Your task to perform on an android device: turn notification dots on Image 0: 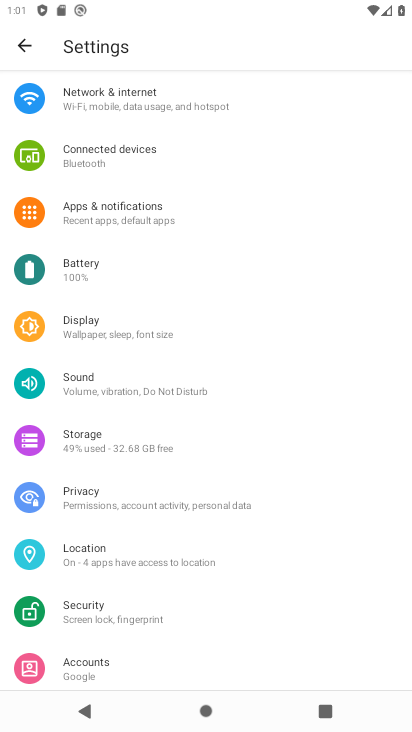
Step 0: click (259, 202)
Your task to perform on an android device: turn notification dots on Image 1: 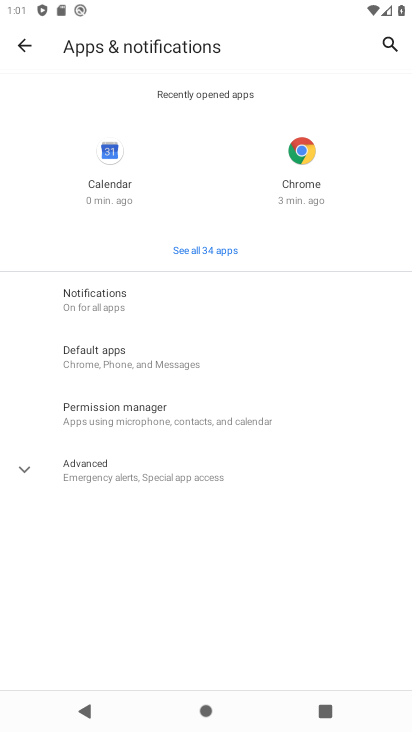
Step 1: click (201, 311)
Your task to perform on an android device: turn notification dots on Image 2: 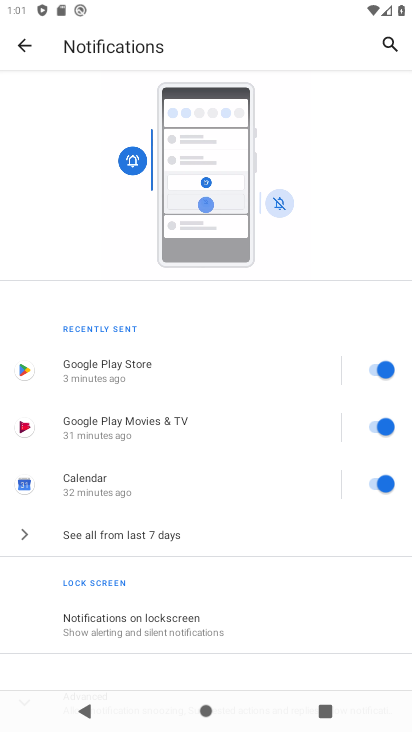
Step 2: drag from (197, 634) to (193, 429)
Your task to perform on an android device: turn notification dots on Image 3: 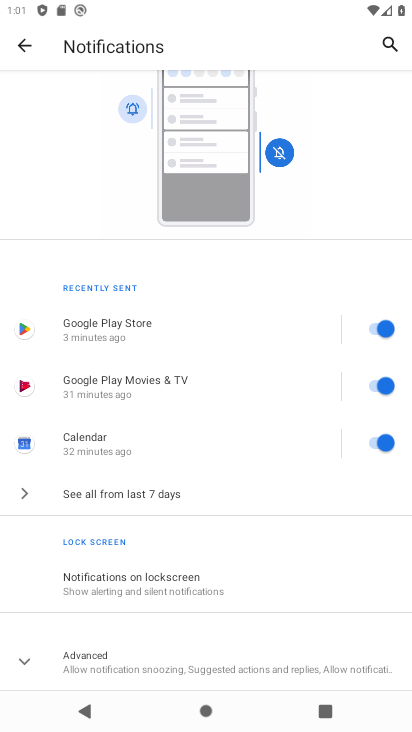
Step 3: click (221, 660)
Your task to perform on an android device: turn notification dots on Image 4: 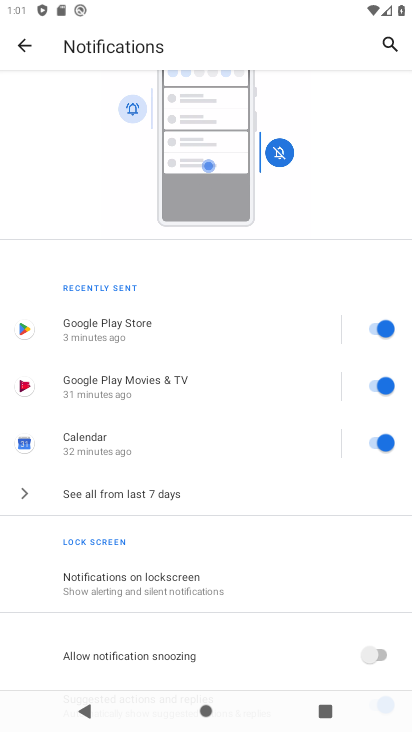
Step 4: task complete